Your task to perform on an android device: see sites visited before in the chrome app Image 0: 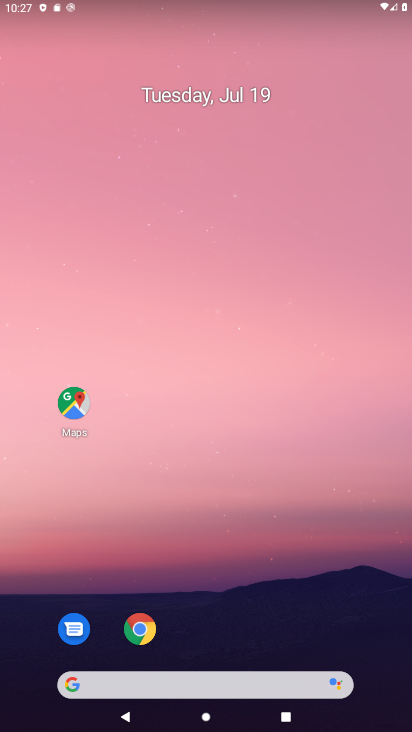
Step 0: drag from (220, 695) to (170, 197)
Your task to perform on an android device: see sites visited before in the chrome app Image 1: 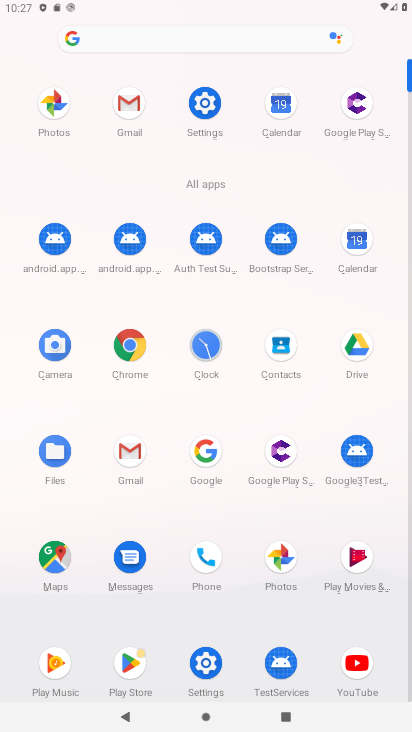
Step 1: click (200, 105)
Your task to perform on an android device: see sites visited before in the chrome app Image 2: 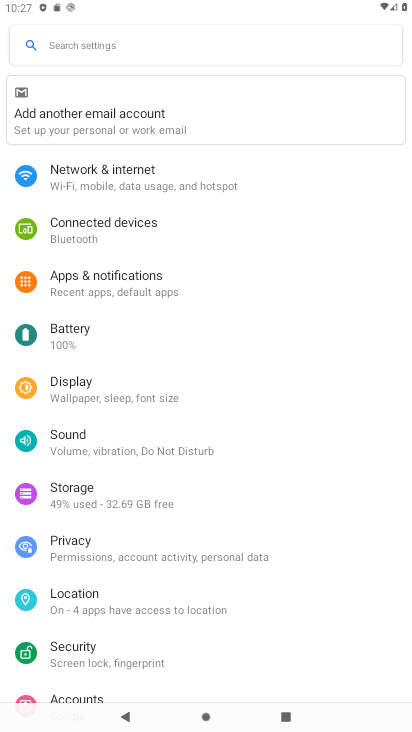
Step 2: click (85, 387)
Your task to perform on an android device: see sites visited before in the chrome app Image 3: 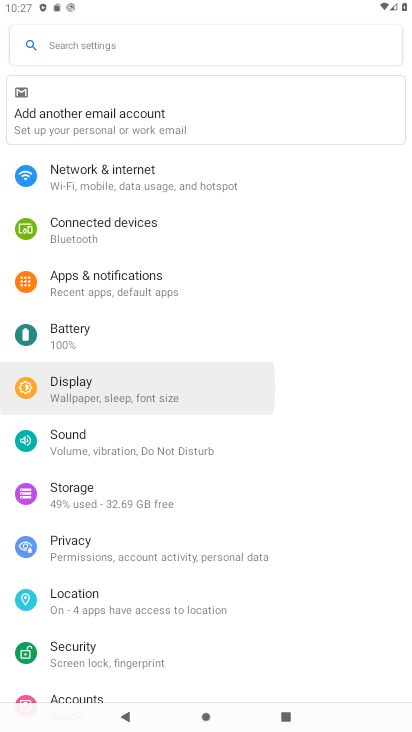
Step 3: click (86, 387)
Your task to perform on an android device: see sites visited before in the chrome app Image 4: 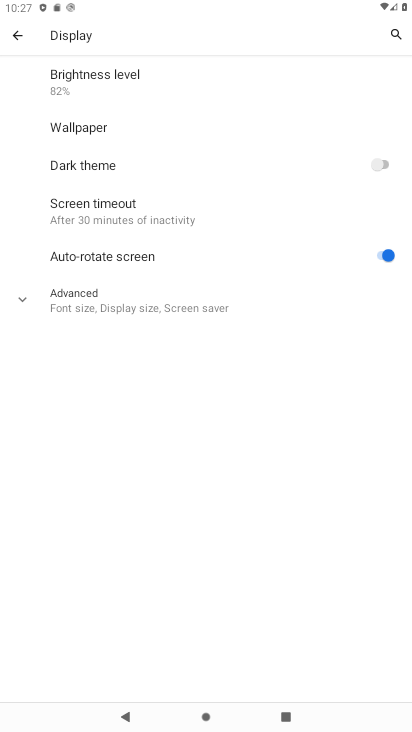
Step 4: click (141, 304)
Your task to perform on an android device: see sites visited before in the chrome app Image 5: 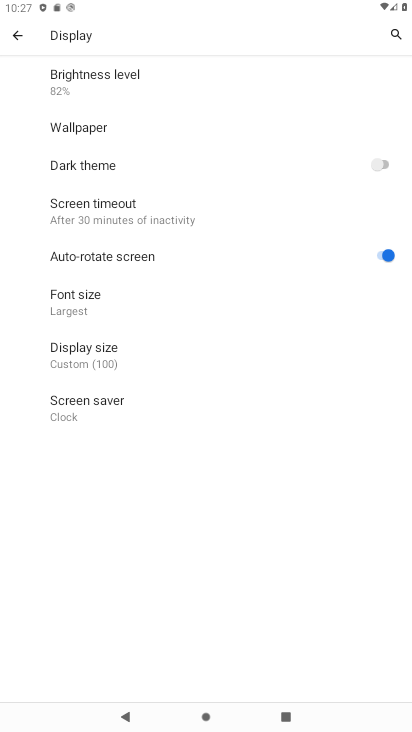
Step 5: click (65, 300)
Your task to perform on an android device: see sites visited before in the chrome app Image 6: 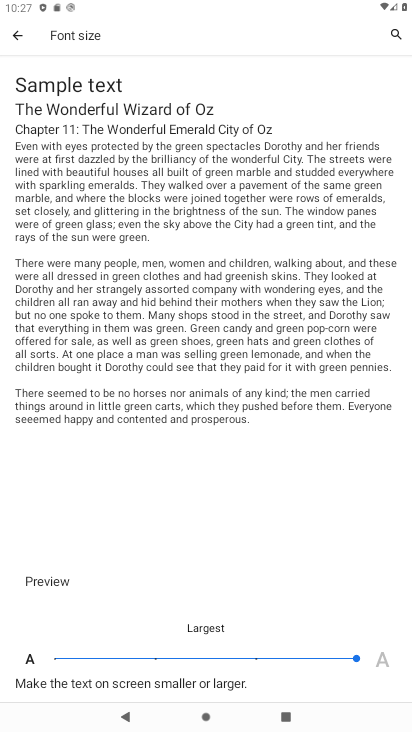
Step 6: click (14, 19)
Your task to perform on an android device: see sites visited before in the chrome app Image 7: 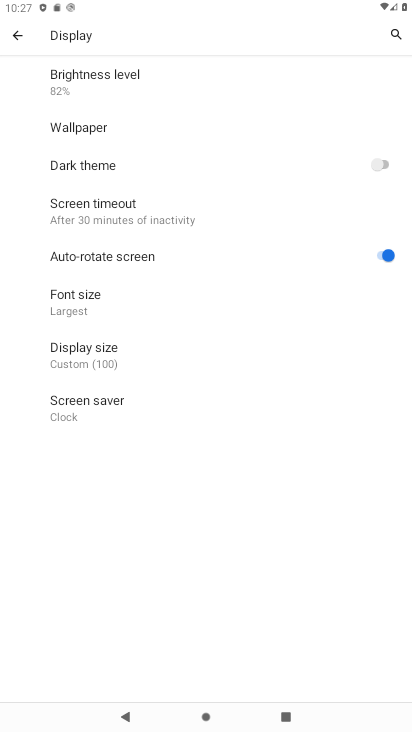
Step 7: click (14, 36)
Your task to perform on an android device: see sites visited before in the chrome app Image 8: 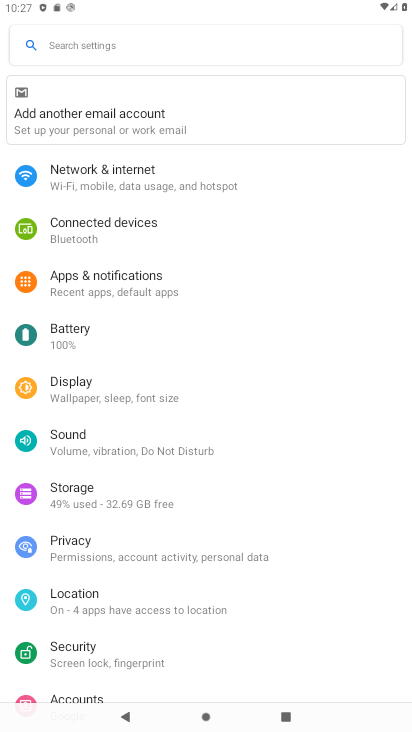
Step 8: press home button
Your task to perform on an android device: see sites visited before in the chrome app Image 9: 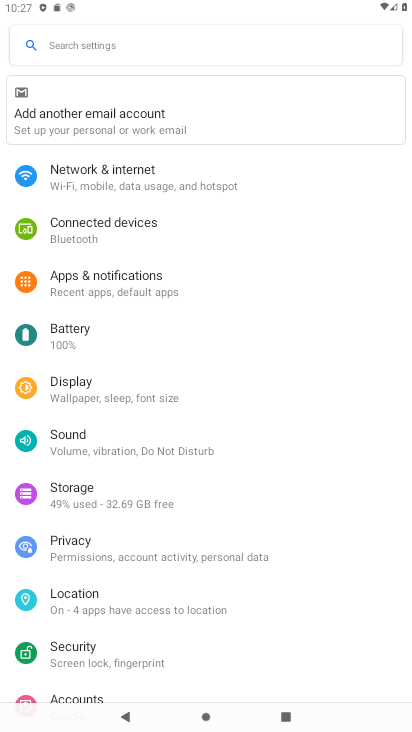
Step 9: press home button
Your task to perform on an android device: see sites visited before in the chrome app Image 10: 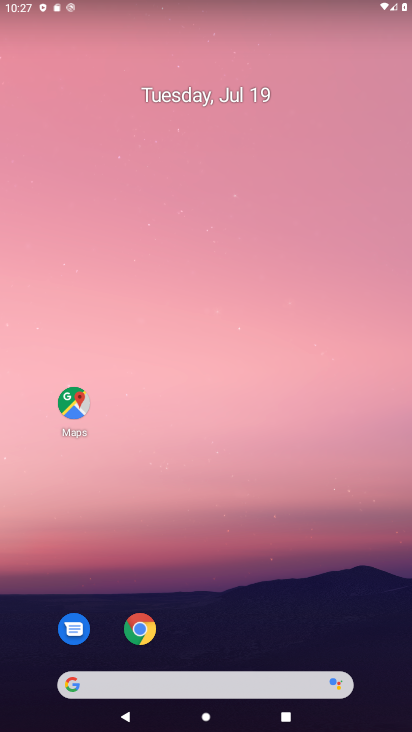
Step 10: drag from (246, 575) to (227, 19)
Your task to perform on an android device: see sites visited before in the chrome app Image 11: 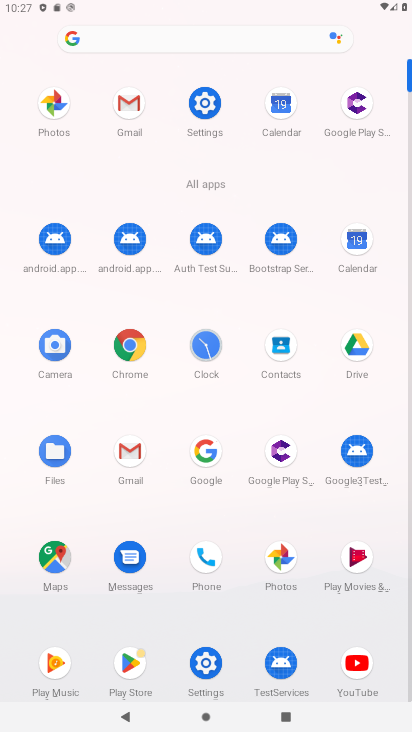
Step 11: click (134, 348)
Your task to perform on an android device: see sites visited before in the chrome app Image 12: 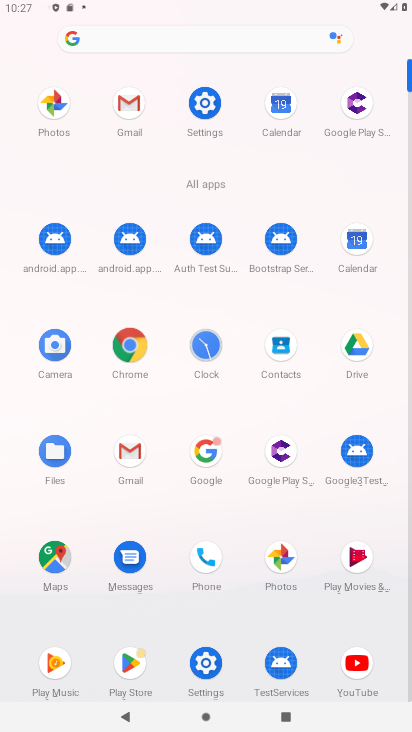
Step 12: click (134, 347)
Your task to perform on an android device: see sites visited before in the chrome app Image 13: 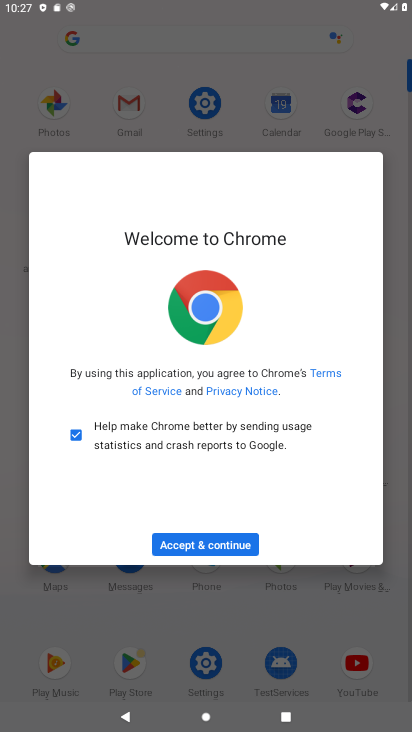
Step 13: click (216, 544)
Your task to perform on an android device: see sites visited before in the chrome app Image 14: 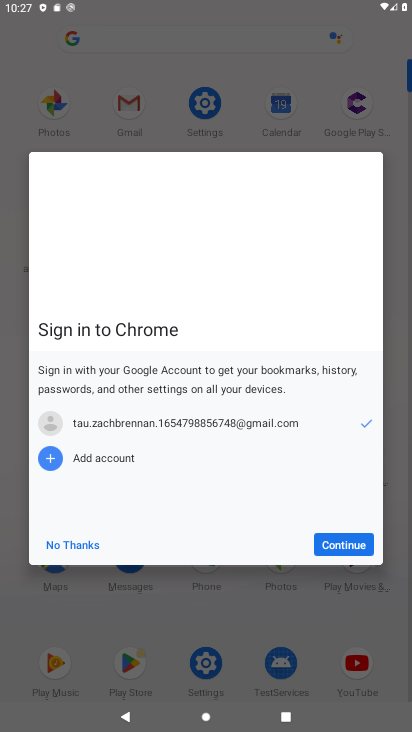
Step 14: click (218, 545)
Your task to perform on an android device: see sites visited before in the chrome app Image 15: 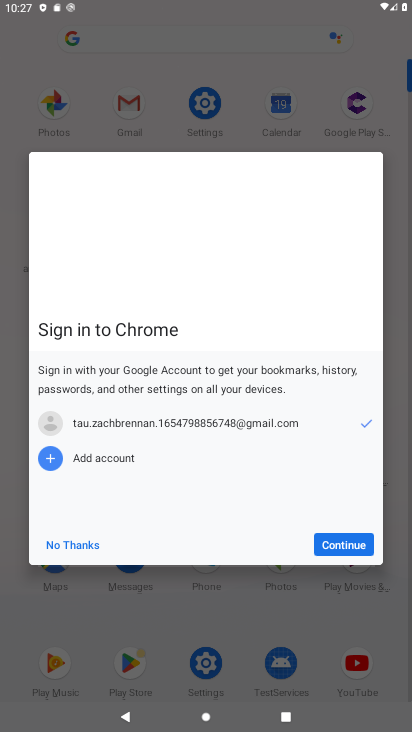
Step 15: click (225, 540)
Your task to perform on an android device: see sites visited before in the chrome app Image 16: 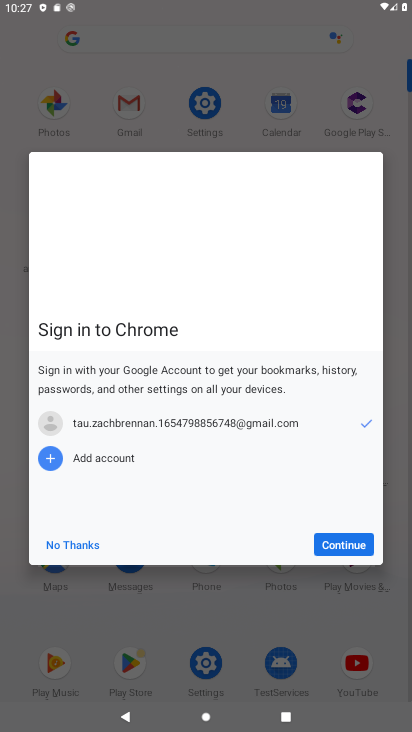
Step 16: click (345, 544)
Your task to perform on an android device: see sites visited before in the chrome app Image 17: 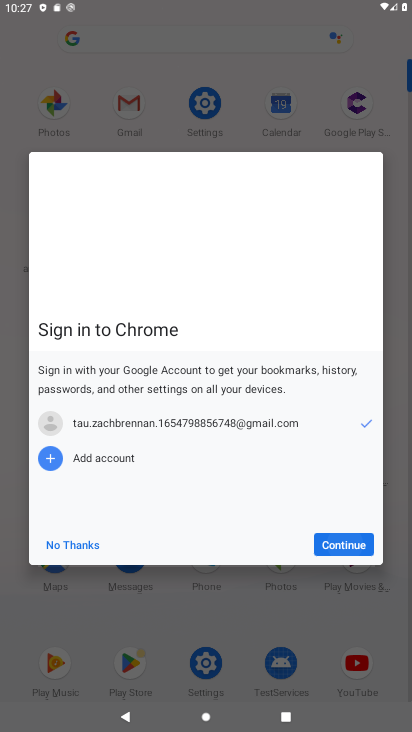
Step 17: click (345, 544)
Your task to perform on an android device: see sites visited before in the chrome app Image 18: 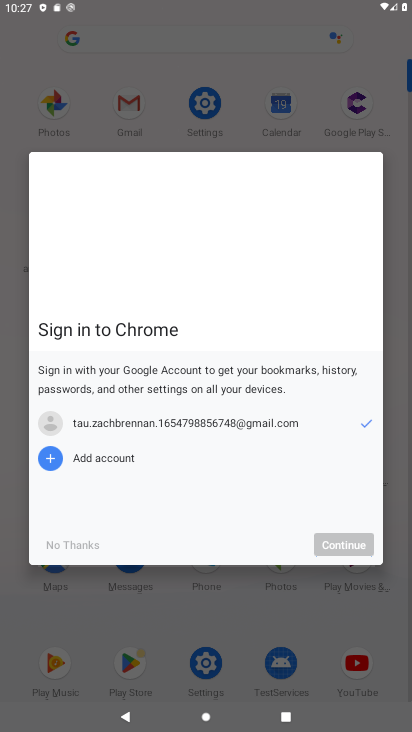
Step 18: click (345, 544)
Your task to perform on an android device: see sites visited before in the chrome app Image 19: 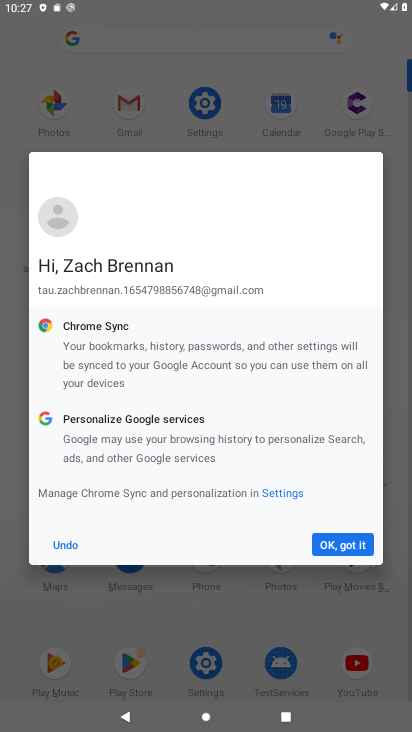
Step 19: click (63, 544)
Your task to perform on an android device: see sites visited before in the chrome app Image 20: 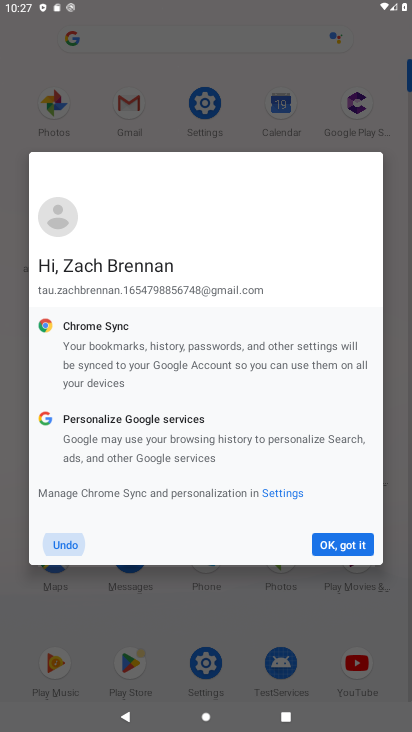
Step 20: click (63, 544)
Your task to perform on an android device: see sites visited before in the chrome app Image 21: 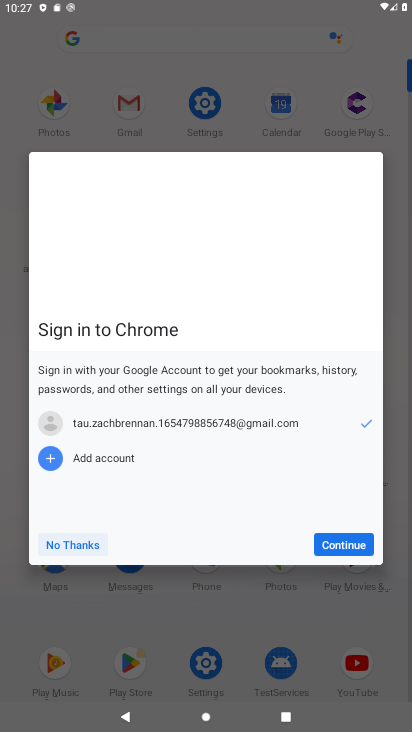
Step 21: click (63, 544)
Your task to perform on an android device: see sites visited before in the chrome app Image 22: 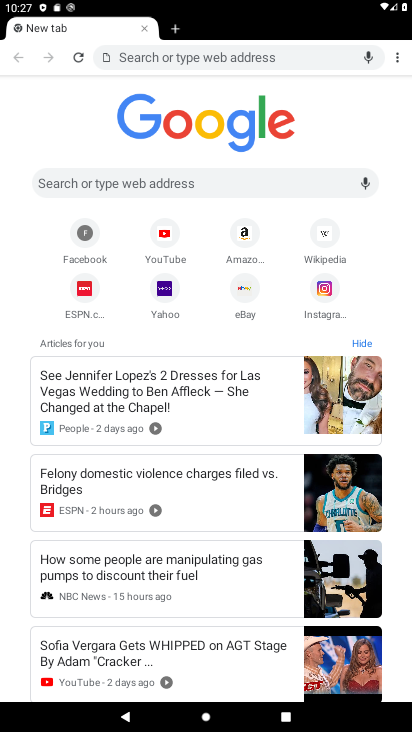
Step 22: drag from (391, 54) to (287, 144)
Your task to perform on an android device: see sites visited before in the chrome app Image 23: 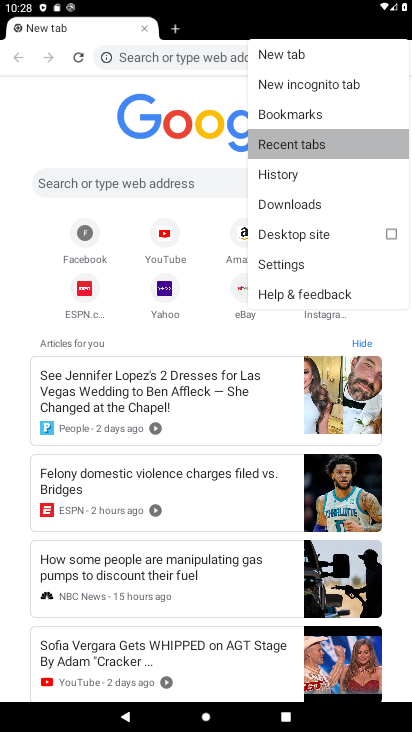
Step 23: click (287, 144)
Your task to perform on an android device: see sites visited before in the chrome app Image 24: 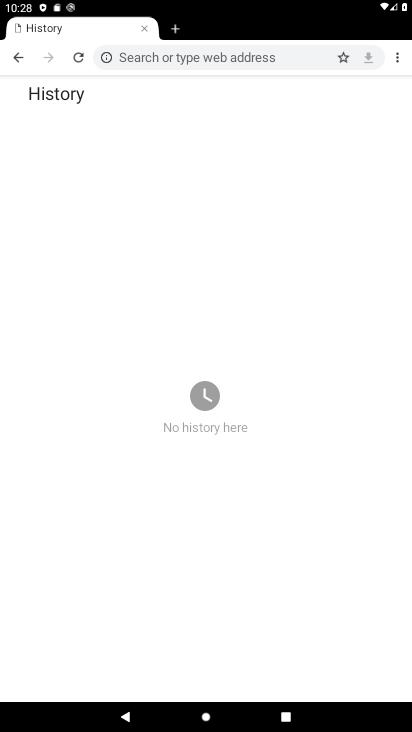
Step 24: task complete